Your task to perform on an android device: Go to Google maps Image 0: 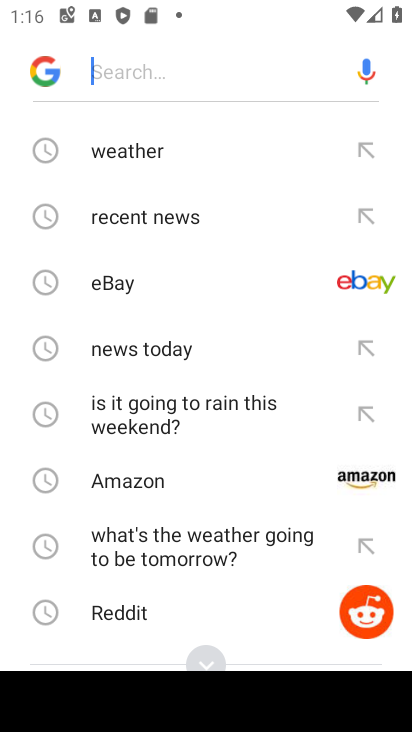
Step 0: press home button
Your task to perform on an android device: Go to Google maps Image 1: 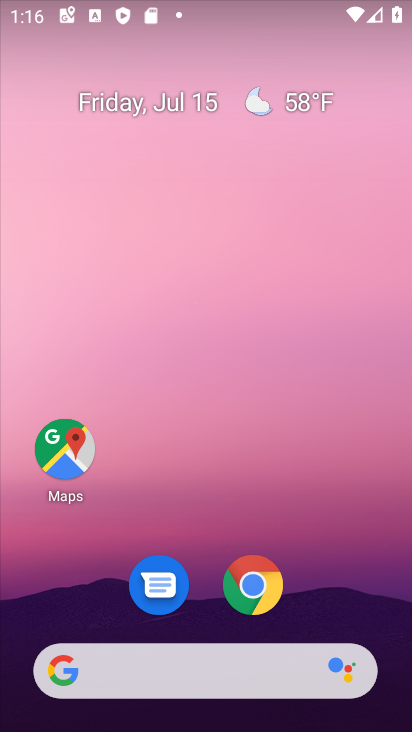
Step 1: click (68, 442)
Your task to perform on an android device: Go to Google maps Image 2: 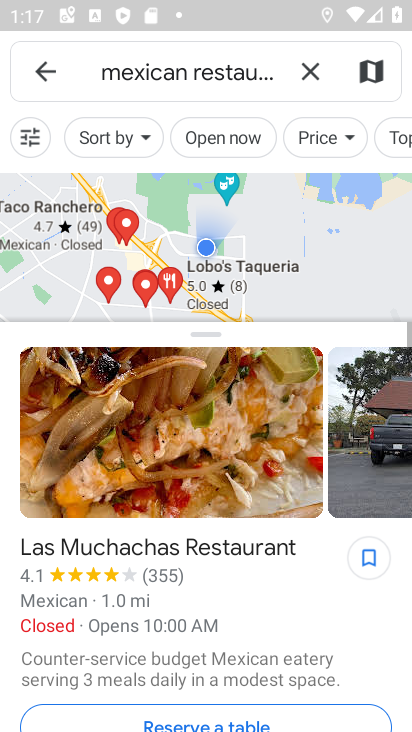
Step 2: click (309, 67)
Your task to perform on an android device: Go to Google maps Image 3: 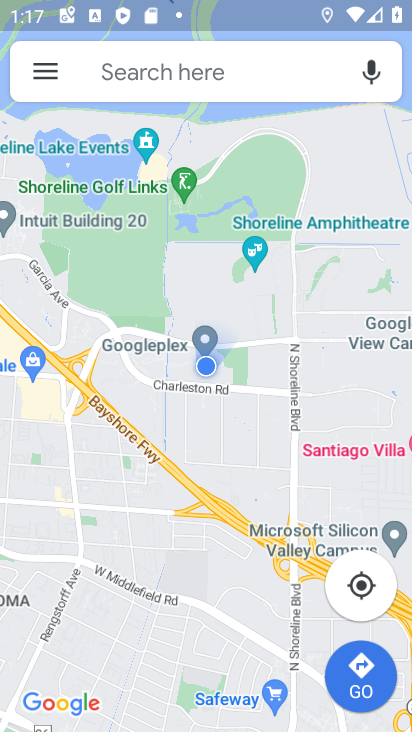
Step 3: task complete